Your task to perform on an android device: change the upload size in google photos Image 0: 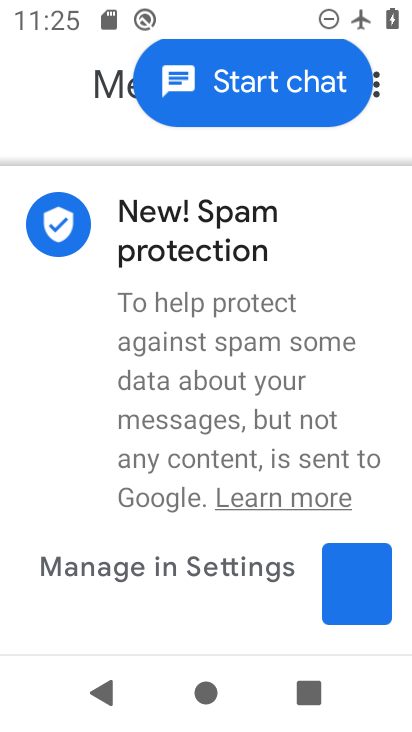
Step 0: press home button
Your task to perform on an android device: change the upload size in google photos Image 1: 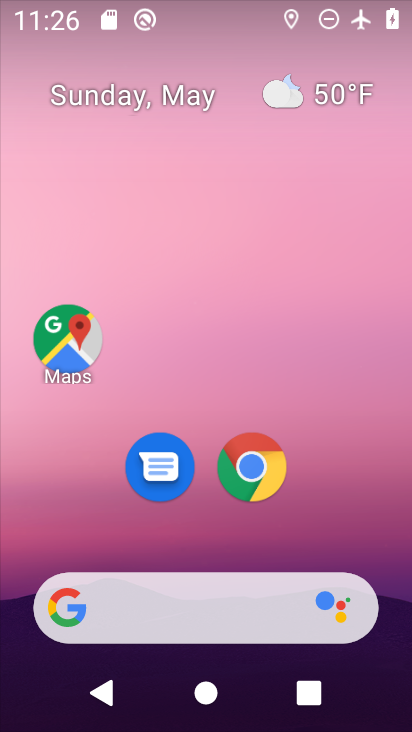
Step 1: drag from (205, 546) to (184, 259)
Your task to perform on an android device: change the upload size in google photos Image 2: 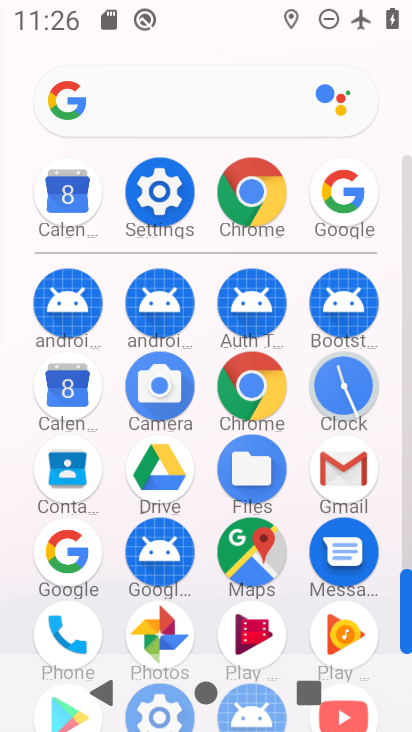
Step 2: drag from (205, 621) to (216, 310)
Your task to perform on an android device: change the upload size in google photos Image 3: 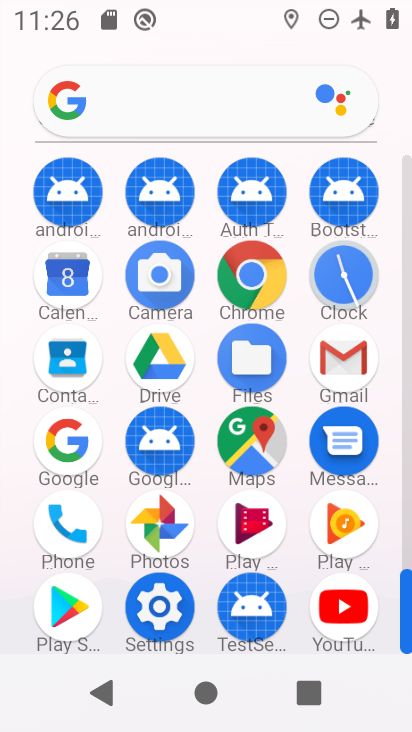
Step 3: click (159, 503)
Your task to perform on an android device: change the upload size in google photos Image 4: 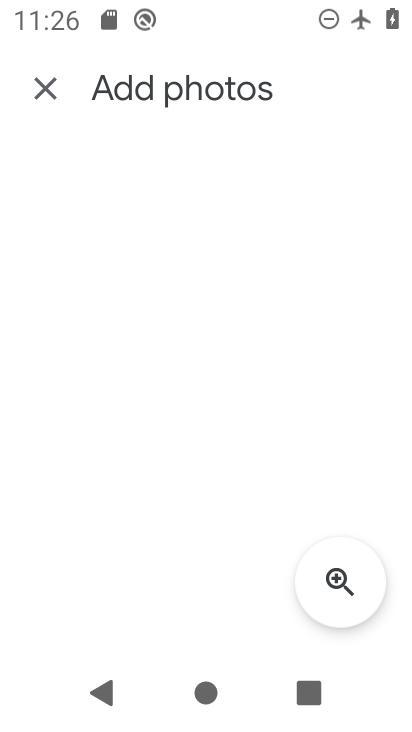
Step 4: press home button
Your task to perform on an android device: change the upload size in google photos Image 5: 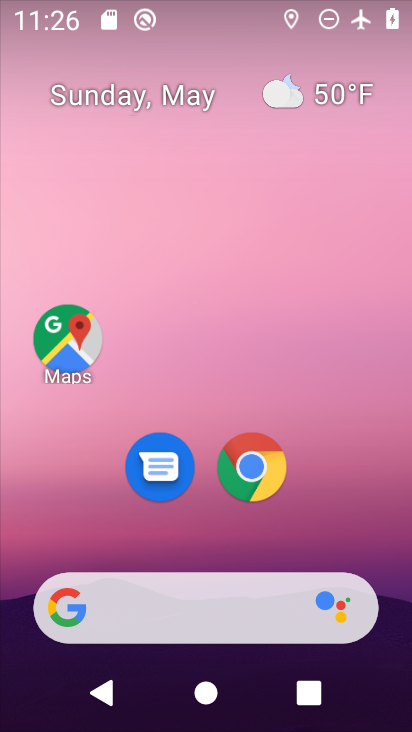
Step 5: drag from (201, 524) to (207, 145)
Your task to perform on an android device: change the upload size in google photos Image 6: 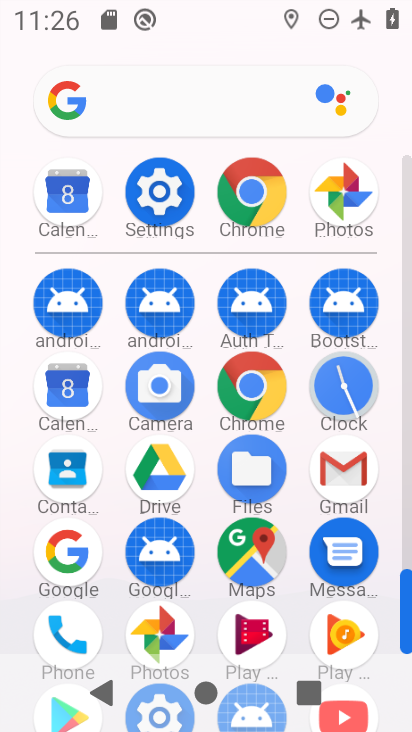
Step 6: click (332, 202)
Your task to perform on an android device: change the upload size in google photos Image 7: 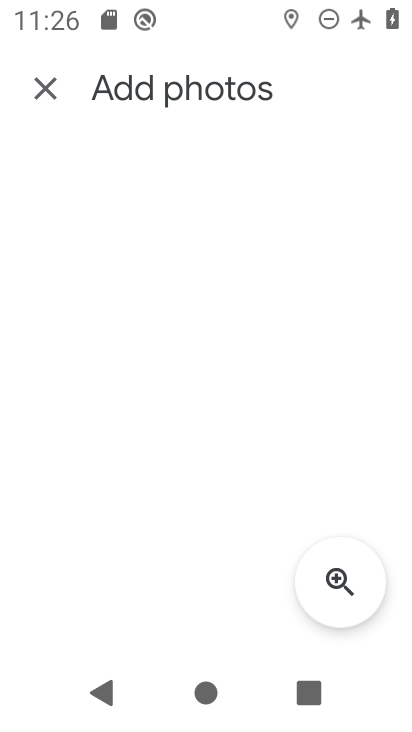
Step 7: click (33, 88)
Your task to perform on an android device: change the upload size in google photos Image 8: 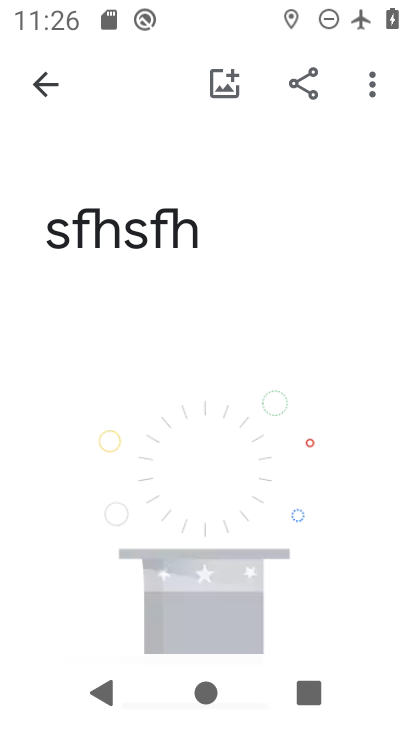
Step 8: click (33, 88)
Your task to perform on an android device: change the upload size in google photos Image 9: 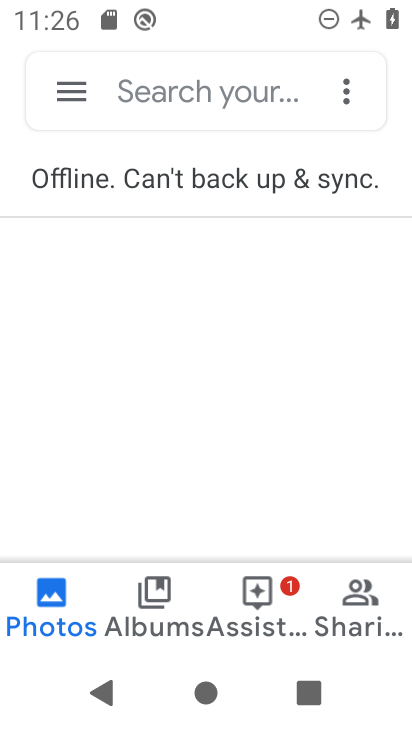
Step 9: click (54, 98)
Your task to perform on an android device: change the upload size in google photos Image 10: 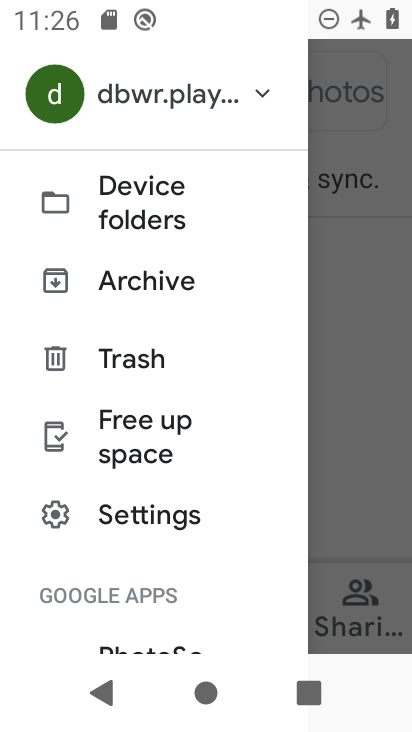
Step 10: click (153, 521)
Your task to perform on an android device: change the upload size in google photos Image 11: 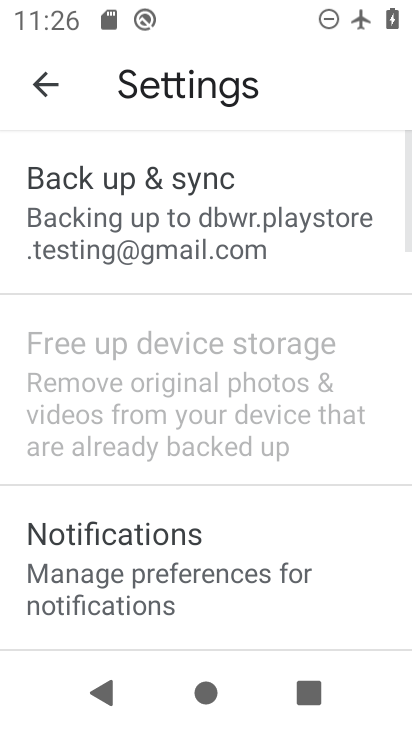
Step 11: click (151, 221)
Your task to perform on an android device: change the upload size in google photos Image 12: 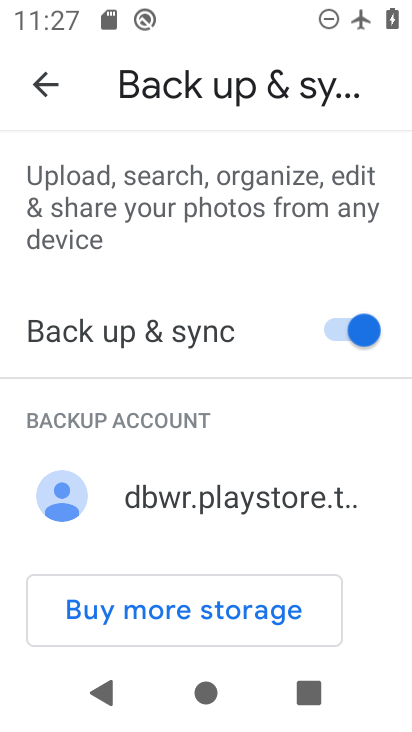
Step 12: drag from (227, 547) to (258, 208)
Your task to perform on an android device: change the upload size in google photos Image 13: 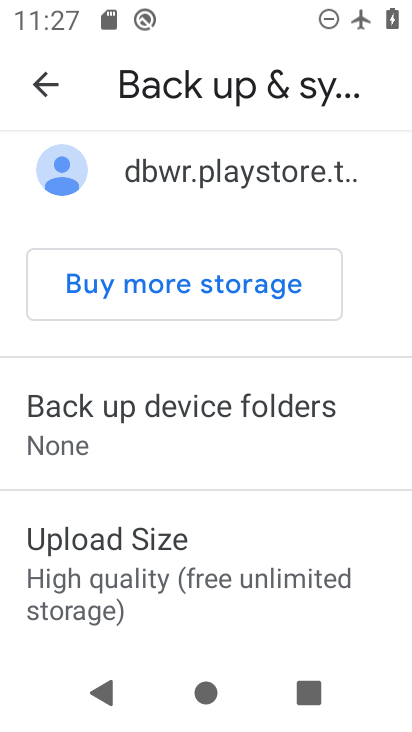
Step 13: click (265, 549)
Your task to perform on an android device: change the upload size in google photos Image 14: 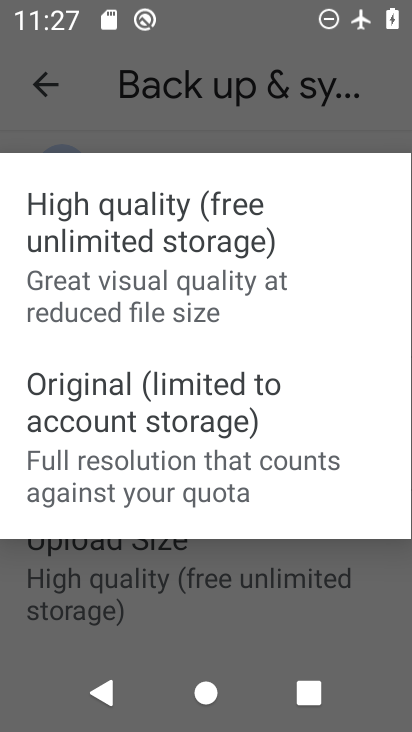
Step 14: click (173, 436)
Your task to perform on an android device: change the upload size in google photos Image 15: 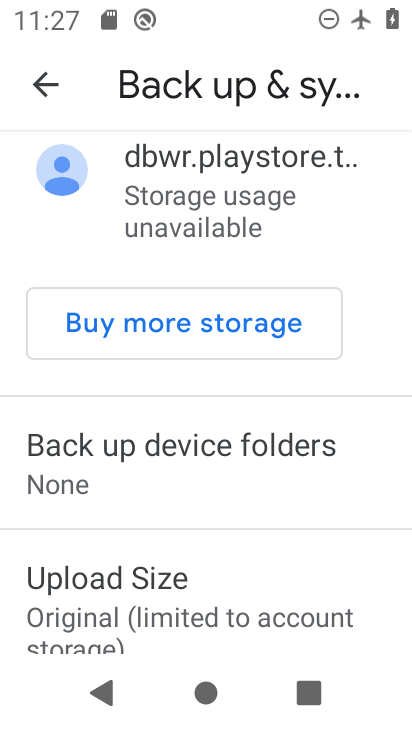
Step 15: task complete